Your task to perform on an android device: Open Google Image 0: 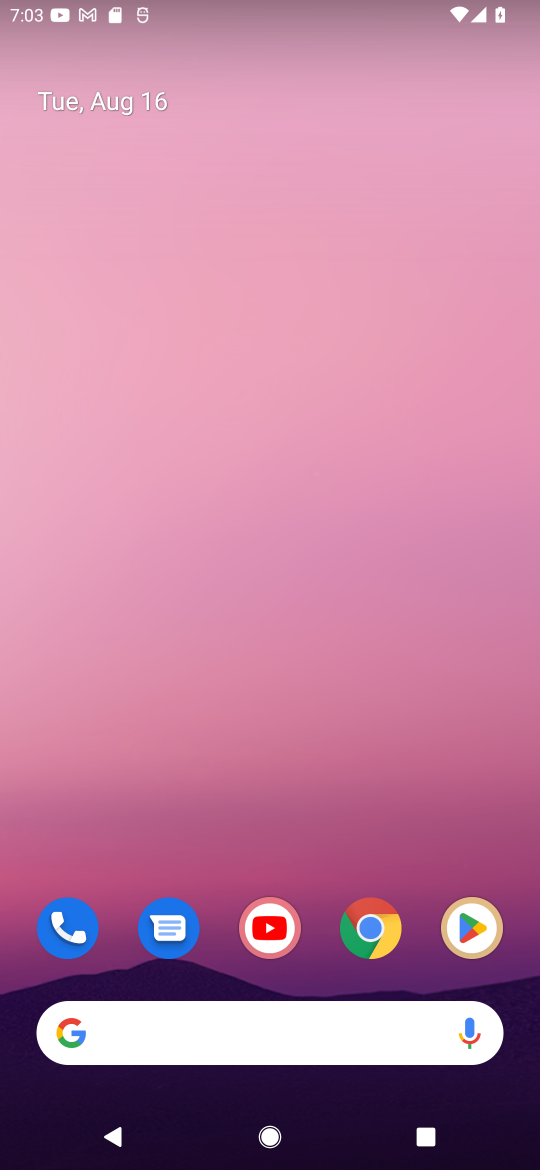
Step 0: drag from (297, 1023) to (248, 35)
Your task to perform on an android device: Open Google Image 1: 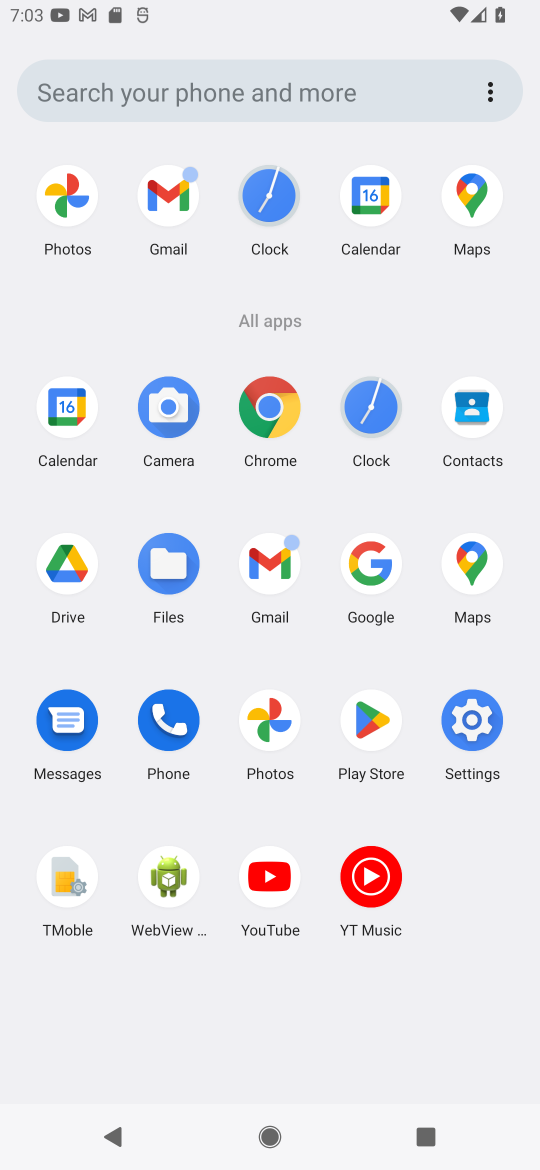
Step 1: click (365, 562)
Your task to perform on an android device: Open Google Image 2: 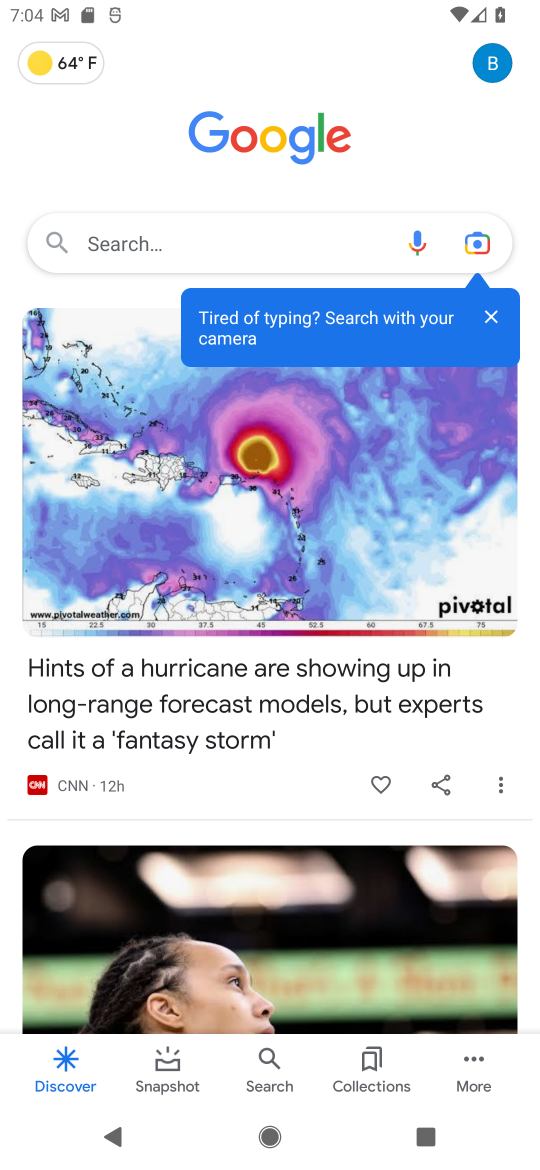
Step 2: task complete